Your task to perform on an android device: Search for the best value 4K TV on Best Buy Image 0: 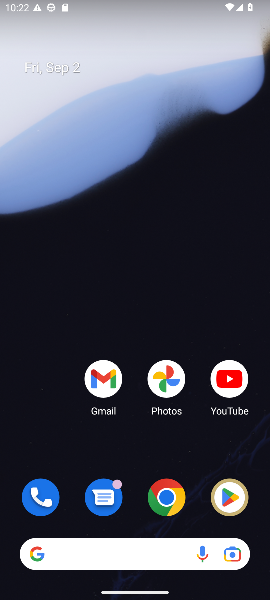
Step 0: click (164, 487)
Your task to perform on an android device: Search for the best value 4K TV on Best Buy Image 1: 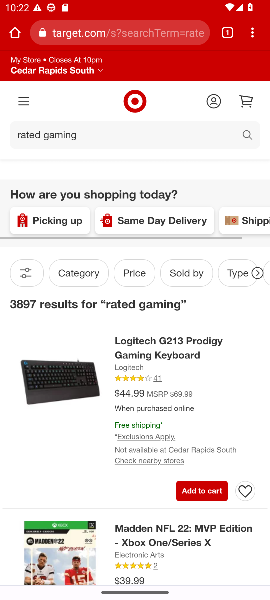
Step 1: click (131, 37)
Your task to perform on an android device: Search for the best value 4K TV on Best Buy Image 2: 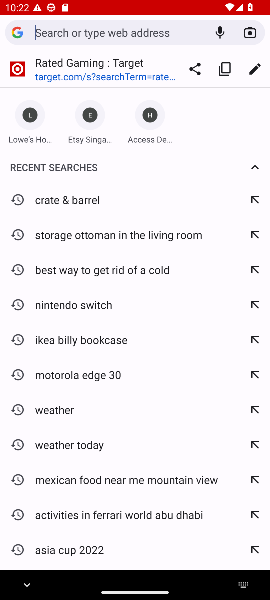
Step 2: type "best "
Your task to perform on an android device: Search for the best value 4K TV on Best Buy Image 3: 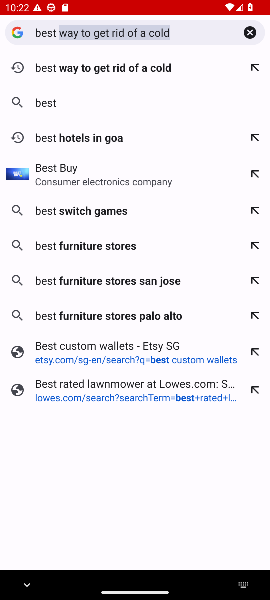
Step 3: click (252, 28)
Your task to perform on an android device: Search for the best value 4K TV on Best Buy Image 4: 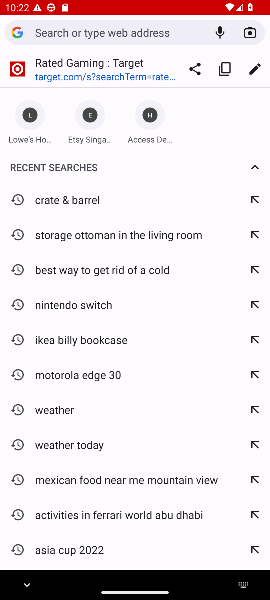
Step 4: type "best buy"
Your task to perform on an android device: Search for the best value 4K TV on Best Buy Image 5: 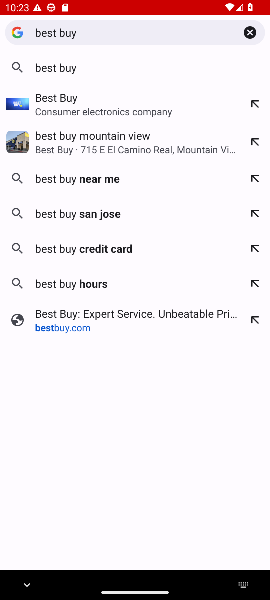
Step 5: click (89, 100)
Your task to perform on an android device: Search for the best value 4K TV on Best Buy Image 6: 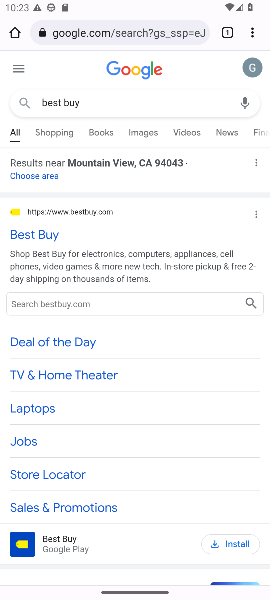
Step 6: click (45, 232)
Your task to perform on an android device: Search for the best value 4K TV on Best Buy Image 7: 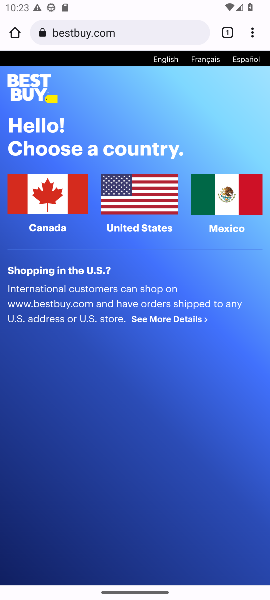
Step 7: click (124, 208)
Your task to perform on an android device: Search for the best value 4K TV on Best Buy Image 8: 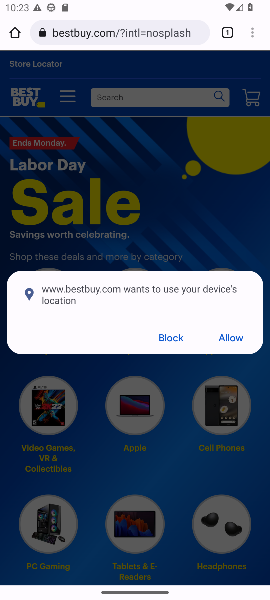
Step 8: click (137, 104)
Your task to perform on an android device: Search for the best value 4K TV on Best Buy Image 9: 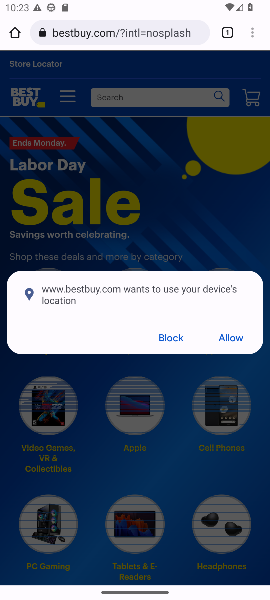
Step 9: click (228, 337)
Your task to perform on an android device: Search for the best value 4K TV on Best Buy Image 10: 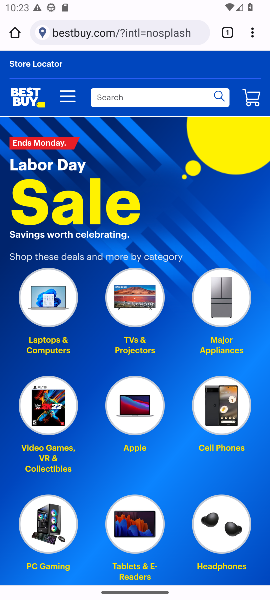
Step 10: click (148, 103)
Your task to perform on an android device: Search for the best value 4K TV on Best Buy Image 11: 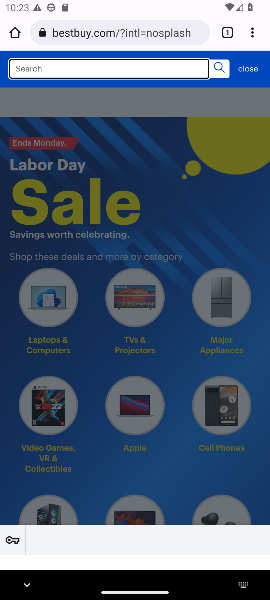
Step 11: type "best value 4k tv"
Your task to perform on an android device: Search for the best value 4K TV on Best Buy Image 12: 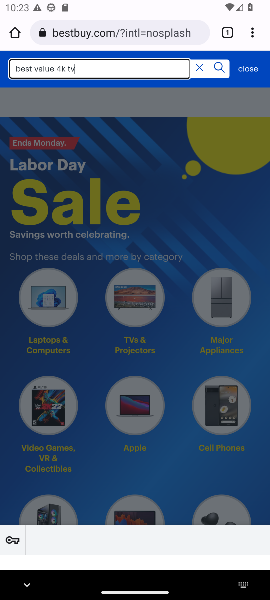
Step 12: press enter
Your task to perform on an android device: Search for the best value 4K TV on Best Buy Image 13: 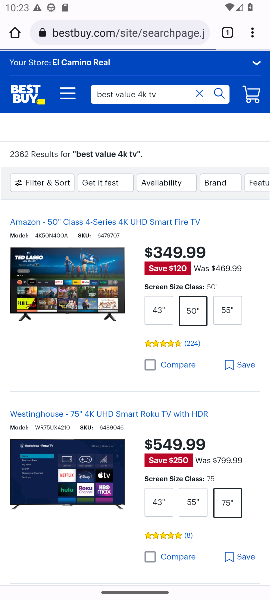
Step 13: task complete